Your task to perform on an android device: turn on javascript in the chrome app Image 0: 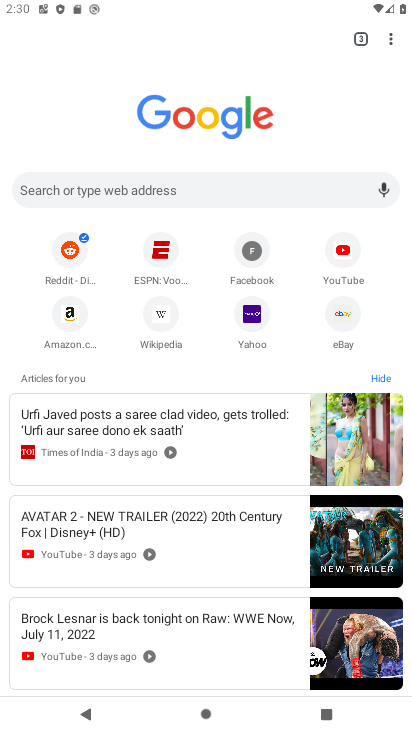
Step 0: click (390, 34)
Your task to perform on an android device: turn on javascript in the chrome app Image 1: 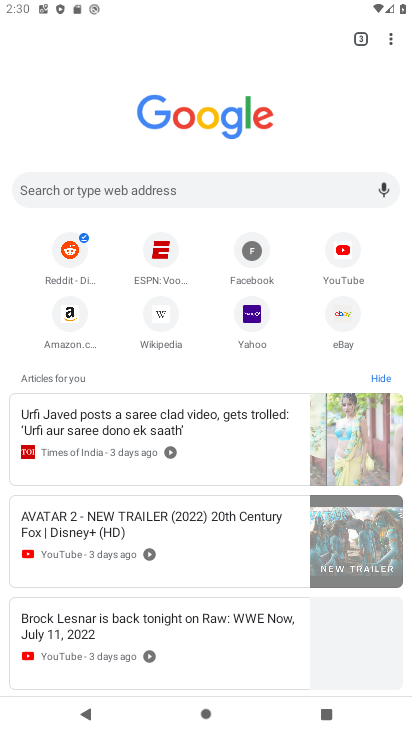
Step 1: drag from (390, 33) to (254, 320)
Your task to perform on an android device: turn on javascript in the chrome app Image 2: 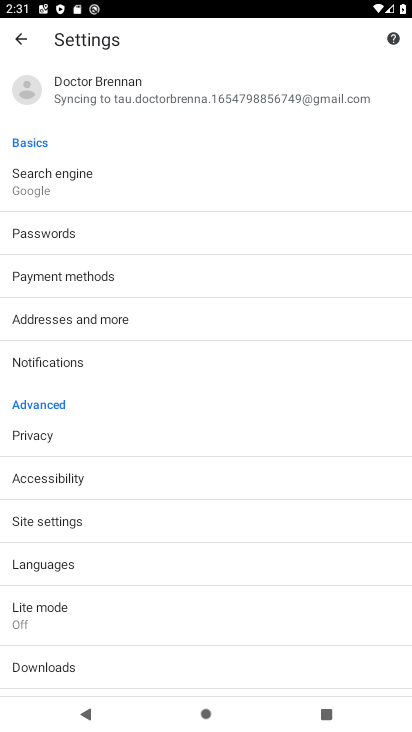
Step 2: click (72, 528)
Your task to perform on an android device: turn on javascript in the chrome app Image 3: 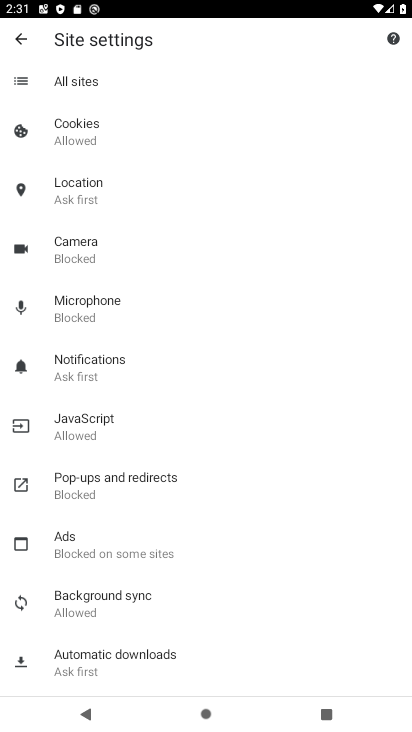
Step 3: click (96, 420)
Your task to perform on an android device: turn on javascript in the chrome app Image 4: 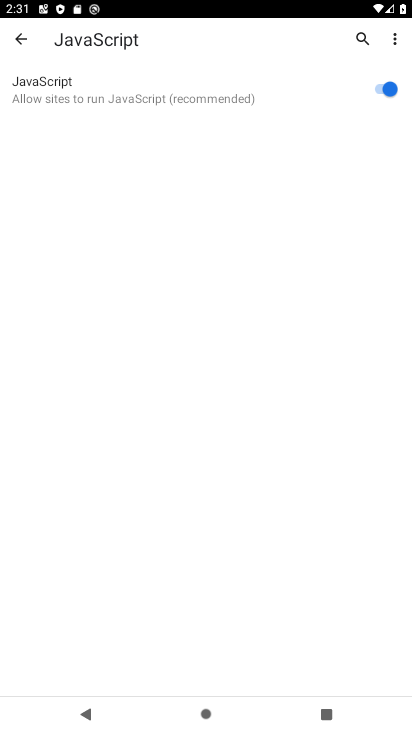
Step 4: task complete